Your task to perform on an android device: see tabs open on other devices in the chrome app Image 0: 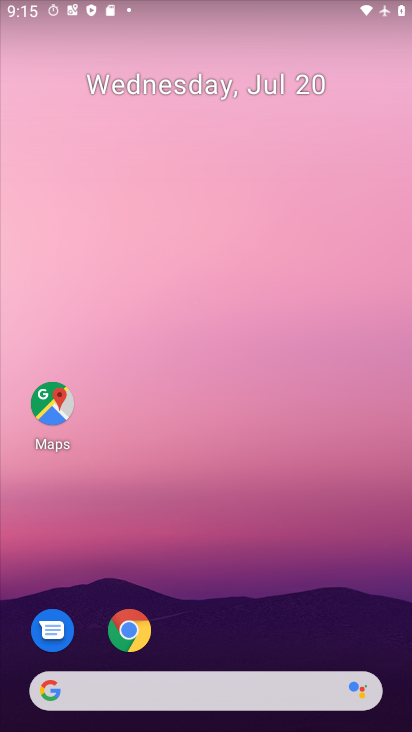
Step 0: drag from (223, 687) to (222, 255)
Your task to perform on an android device: see tabs open on other devices in the chrome app Image 1: 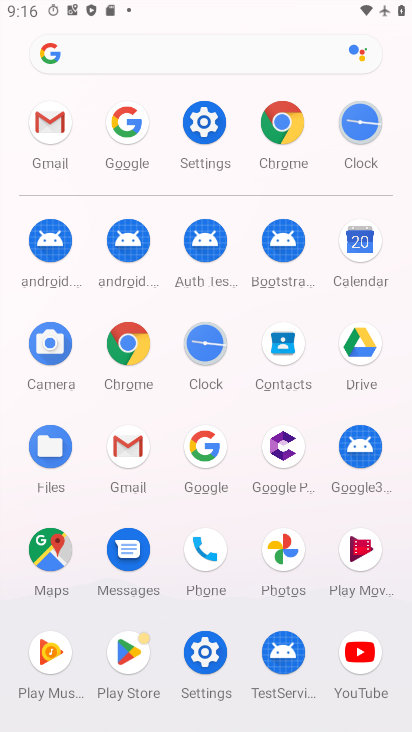
Step 1: click (128, 369)
Your task to perform on an android device: see tabs open on other devices in the chrome app Image 2: 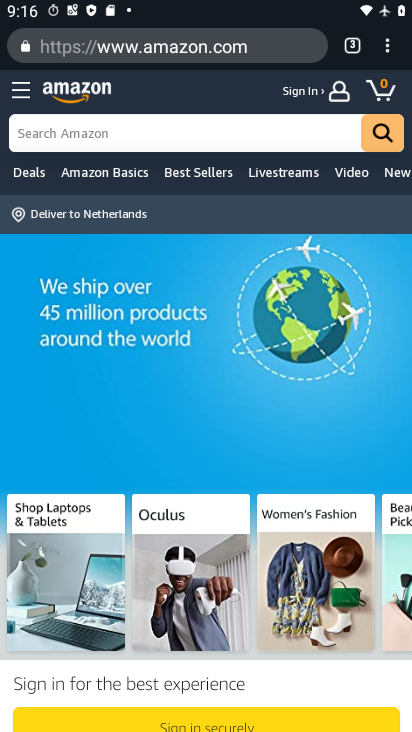
Step 2: task complete